Your task to perform on an android device: toggle notifications settings in the gmail app Image 0: 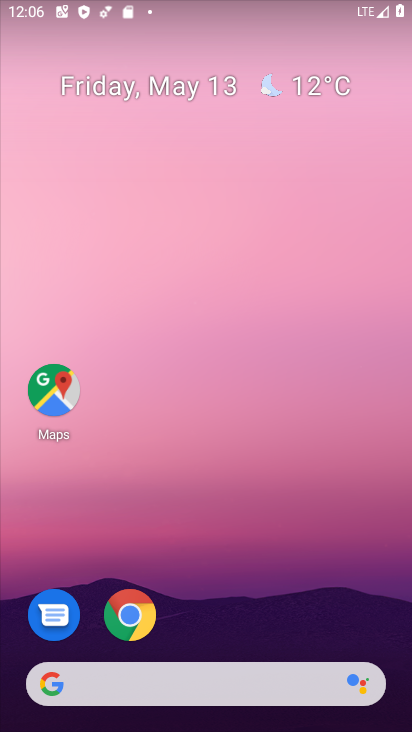
Step 0: drag from (215, 606) to (215, 233)
Your task to perform on an android device: toggle notifications settings in the gmail app Image 1: 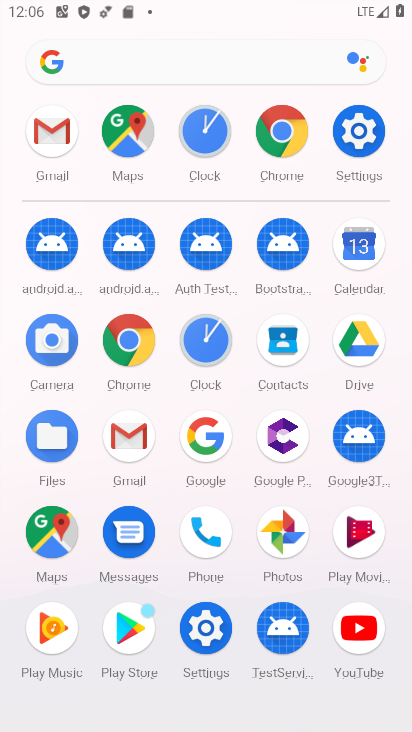
Step 1: click (68, 162)
Your task to perform on an android device: toggle notifications settings in the gmail app Image 2: 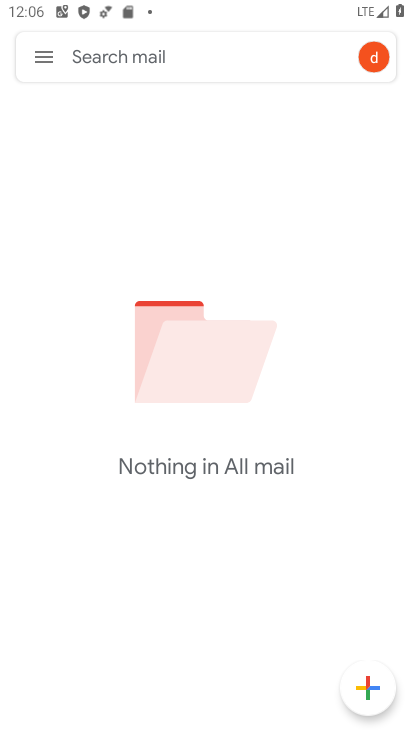
Step 2: click (50, 61)
Your task to perform on an android device: toggle notifications settings in the gmail app Image 3: 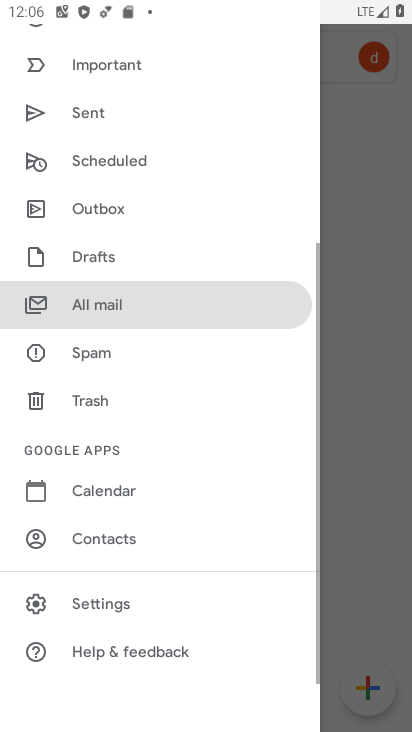
Step 3: click (150, 605)
Your task to perform on an android device: toggle notifications settings in the gmail app Image 4: 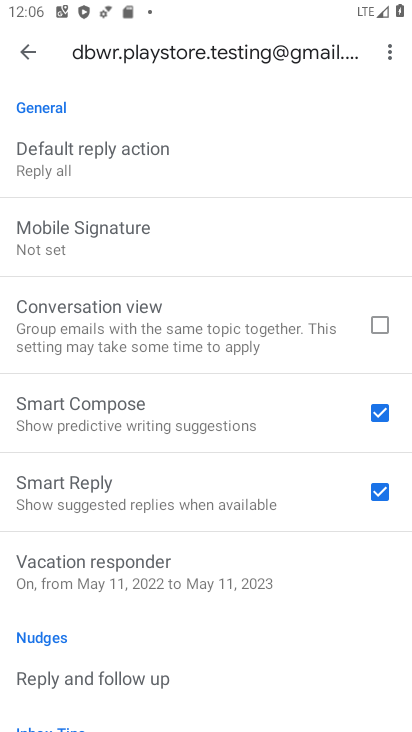
Step 4: drag from (191, 653) to (217, 314)
Your task to perform on an android device: toggle notifications settings in the gmail app Image 5: 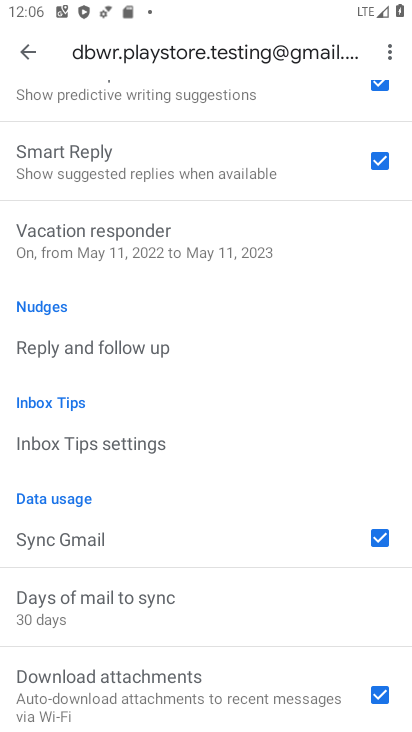
Step 5: drag from (170, 649) to (203, 373)
Your task to perform on an android device: toggle notifications settings in the gmail app Image 6: 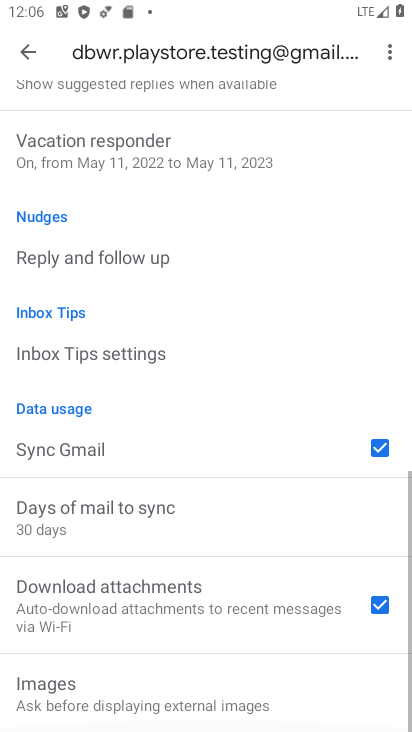
Step 6: drag from (181, 647) to (198, 429)
Your task to perform on an android device: toggle notifications settings in the gmail app Image 7: 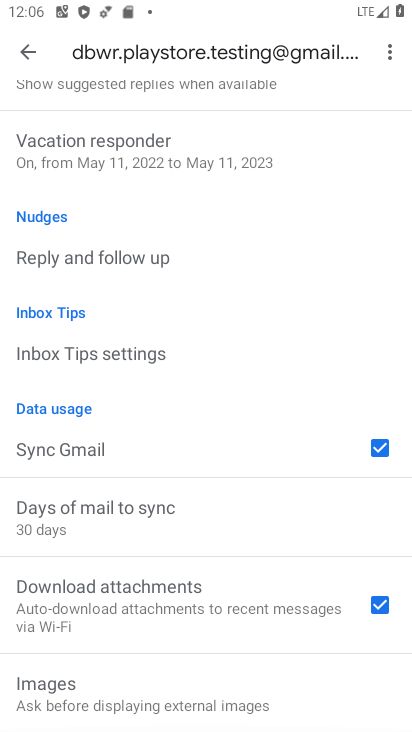
Step 7: drag from (183, 300) to (180, 583)
Your task to perform on an android device: toggle notifications settings in the gmail app Image 8: 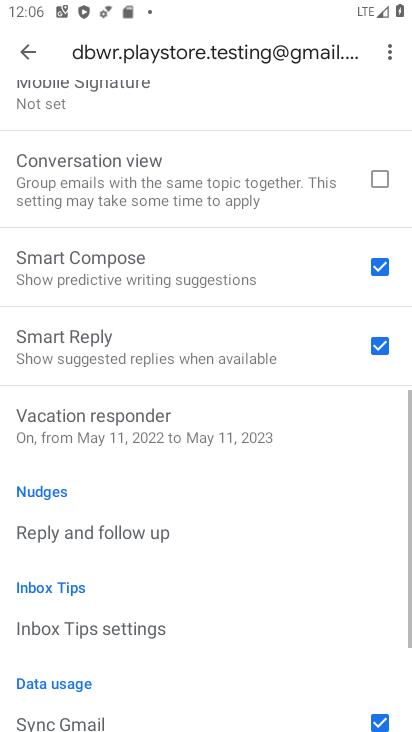
Step 8: drag from (189, 300) to (230, 582)
Your task to perform on an android device: toggle notifications settings in the gmail app Image 9: 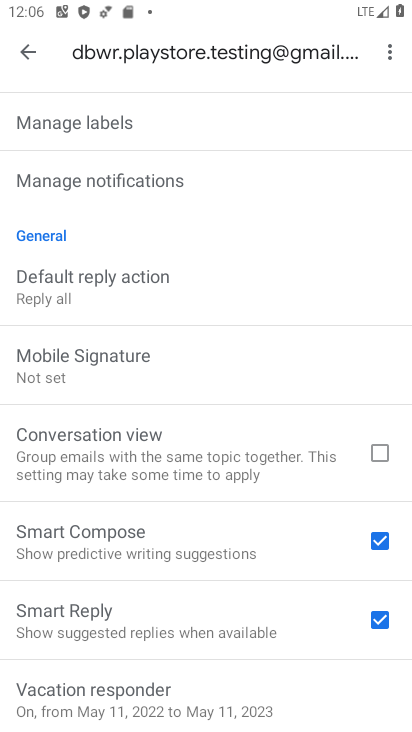
Step 9: drag from (203, 378) to (221, 564)
Your task to perform on an android device: toggle notifications settings in the gmail app Image 10: 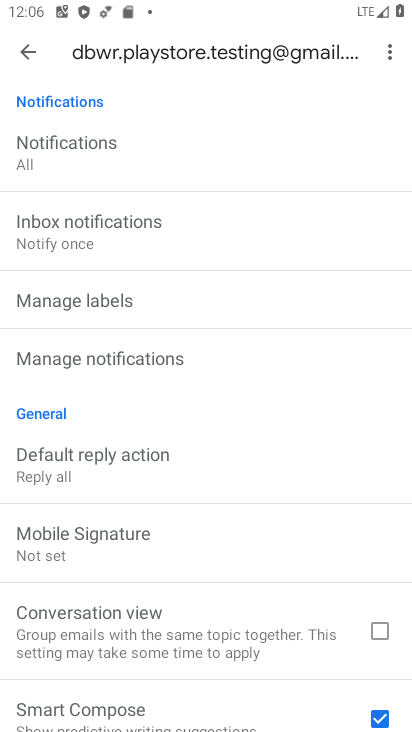
Step 10: click (175, 373)
Your task to perform on an android device: toggle notifications settings in the gmail app Image 11: 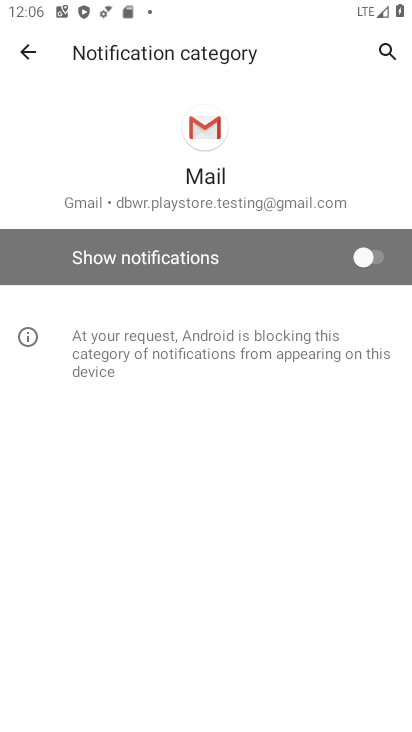
Step 11: click (381, 248)
Your task to perform on an android device: toggle notifications settings in the gmail app Image 12: 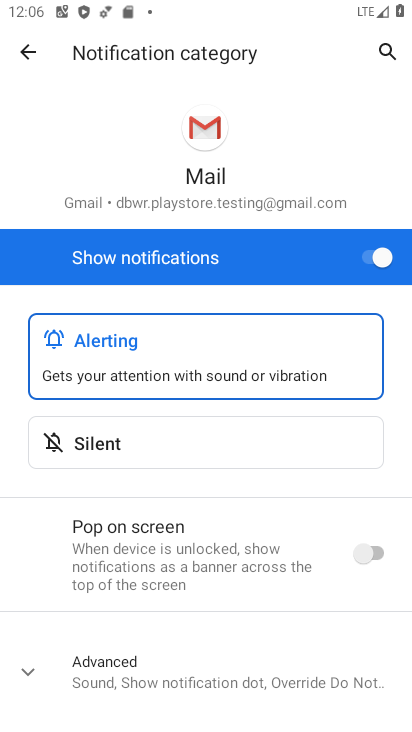
Step 12: task complete